Your task to perform on an android device: Search for flights from NYC to Barcelona Image 0: 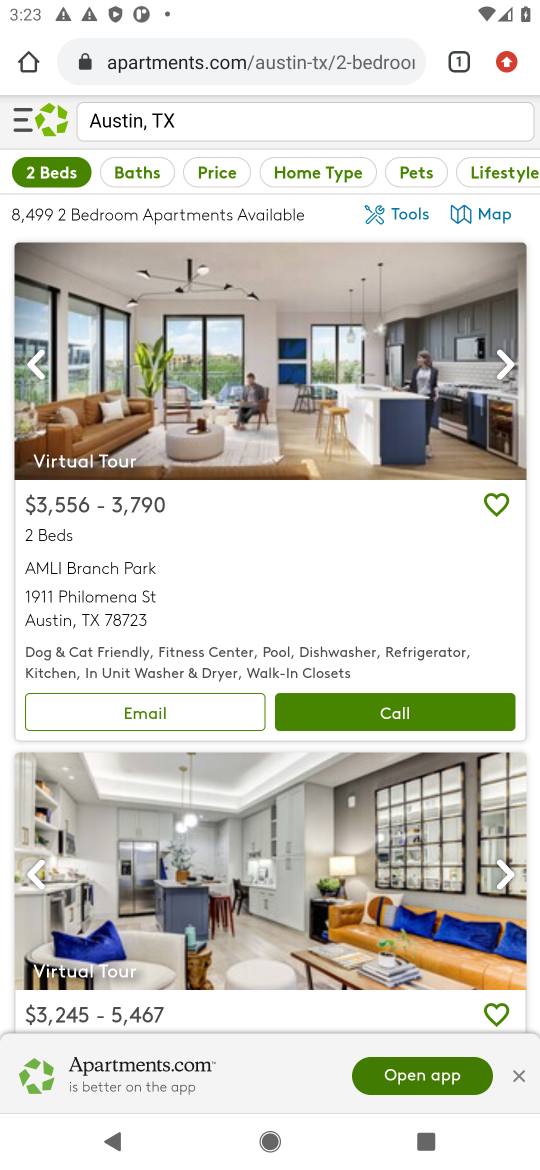
Step 0: press home button
Your task to perform on an android device: Search for flights from NYC to Barcelona Image 1: 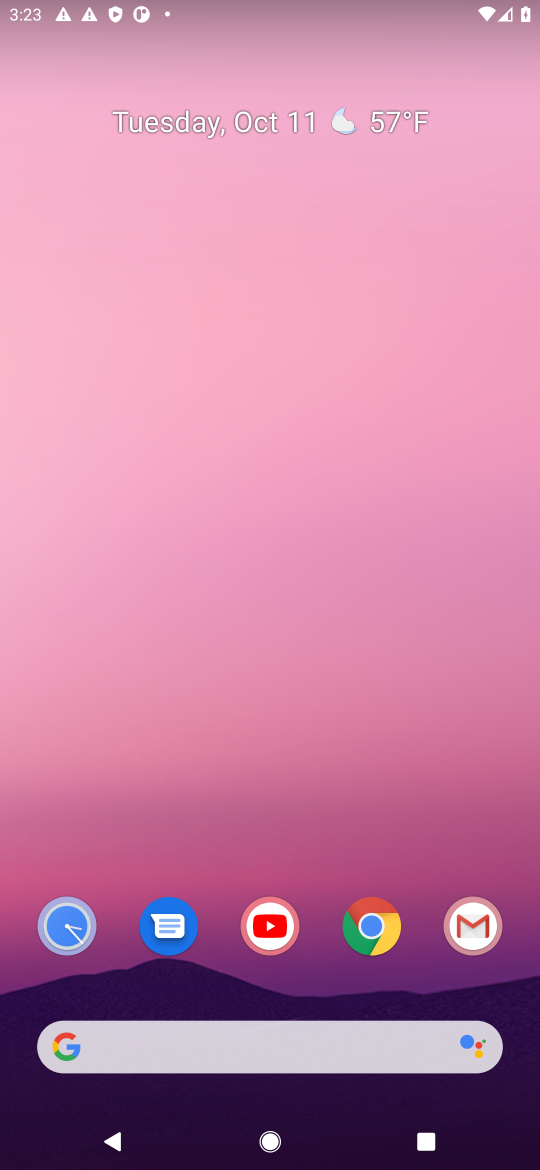
Step 1: click (223, 1049)
Your task to perform on an android device: Search for flights from NYC to Barcelona Image 2: 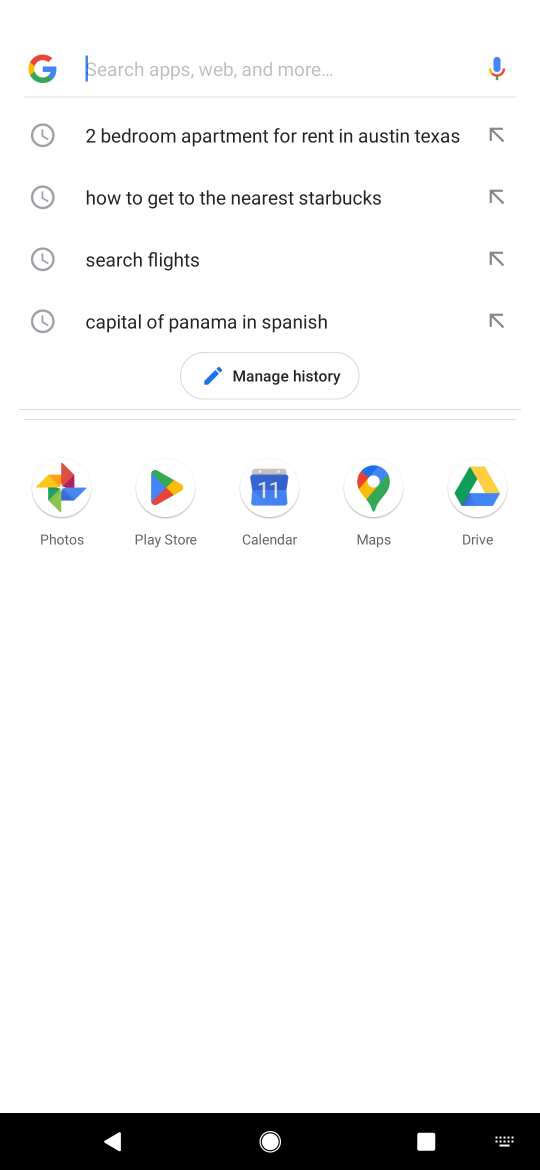
Step 2: type "flights from NYC to Barcelona"
Your task to perform on an android device: Search for flights from NYC to Barcelona Image 3: 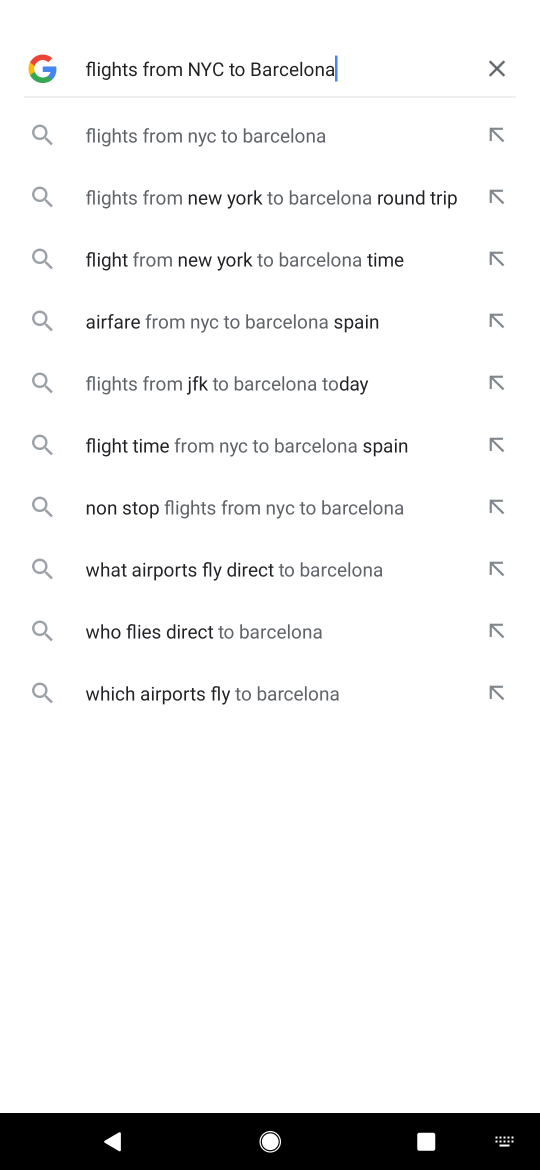
Step 3: click (330, 145)
Your task to perform on an android device: Search for flights from NYC to Barcelona Image 4: 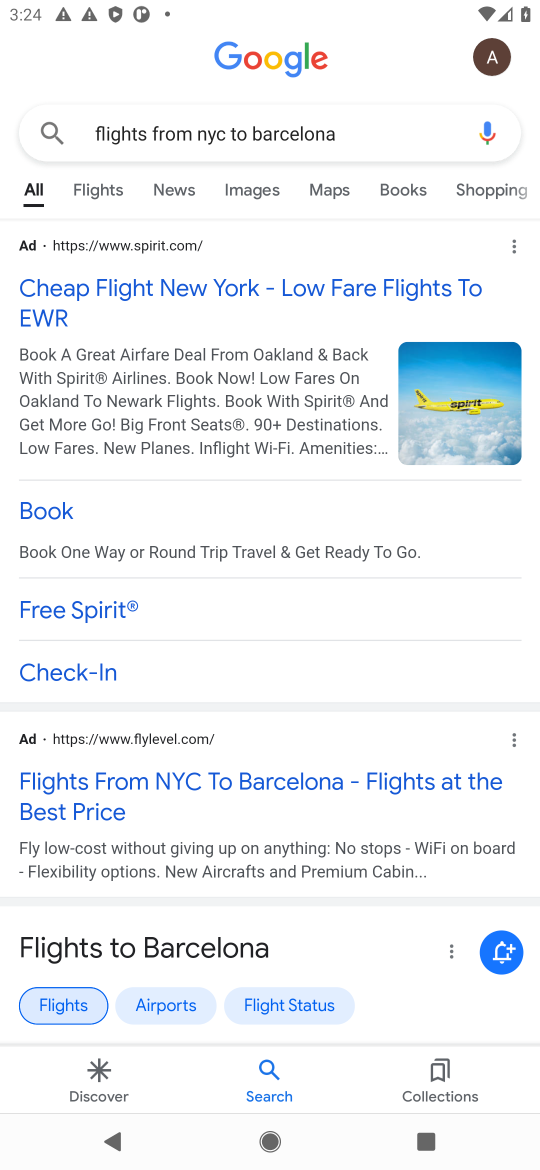
Step 4: task complete